Your task to perform on an android device: Turn on the flashlight Image 0: 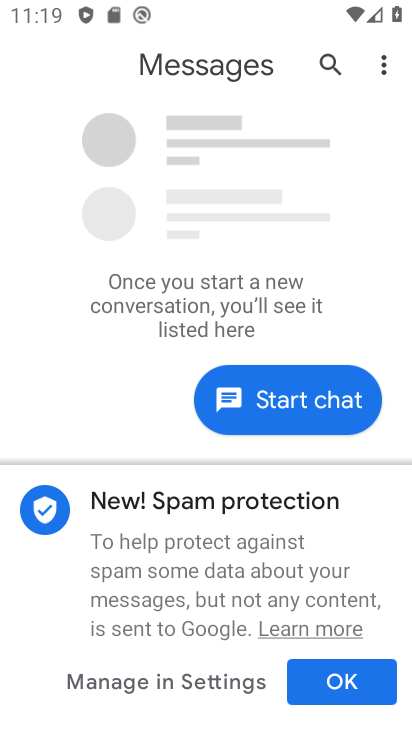
Step 0: press home button
Your task to perform on an android device: Turn on the flashlight Image 1: 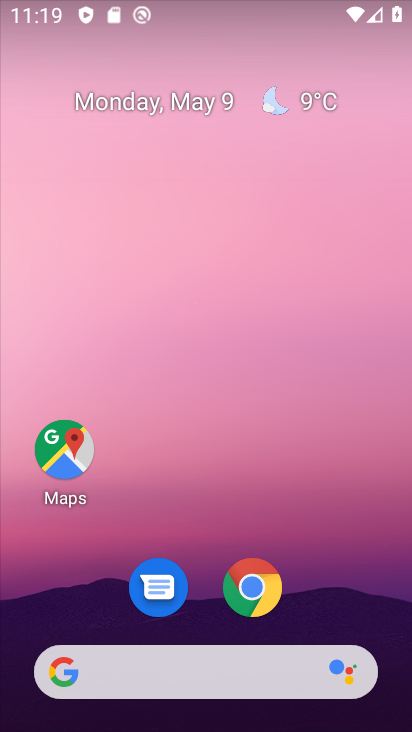
Step 1: drag from (200, 620) to (200, 322)
Your task to perform on an android device: Turn on the flashlight Image 2: 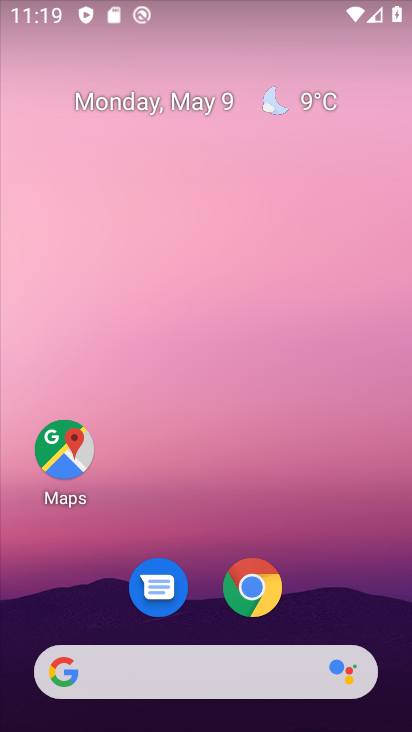
Step 2: drag from (187, 623) to (251, 215)
Your task to perform on an android device: Turn on the flashlight Image 3: 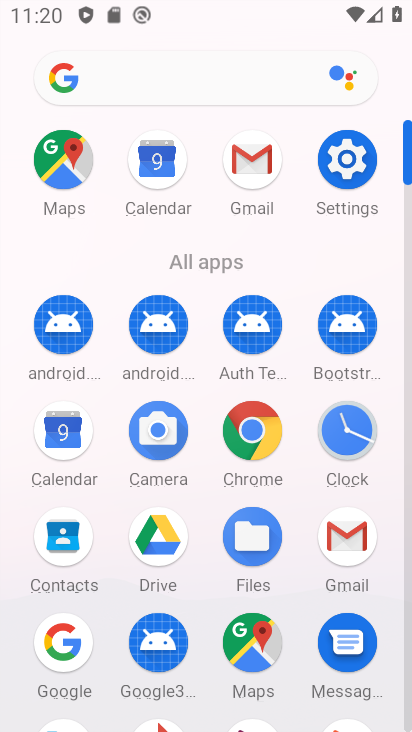
Step 3: click (351, 155)
Your task to perform on an android device: Turn on the flashlight Image 4: 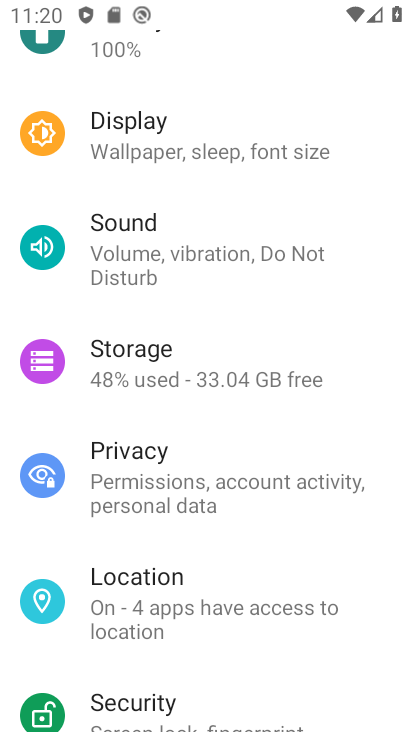
Step 4: click (185, 138)
Your task to perform on an android device: Turn on the flashlight Image 5: 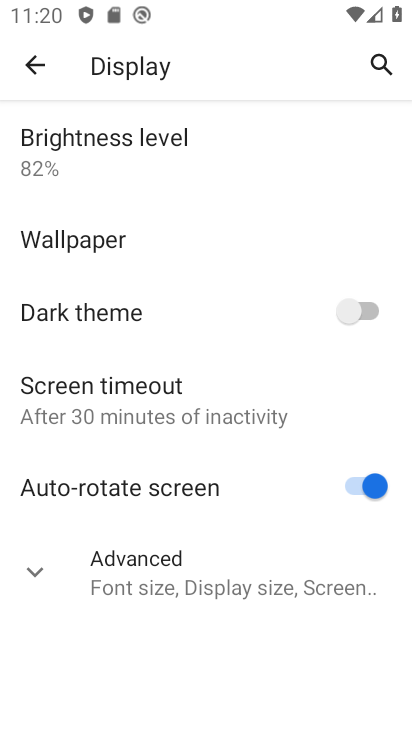
Step 5: task complete